Your task to perform on an android device: Go to display settings Image 0: 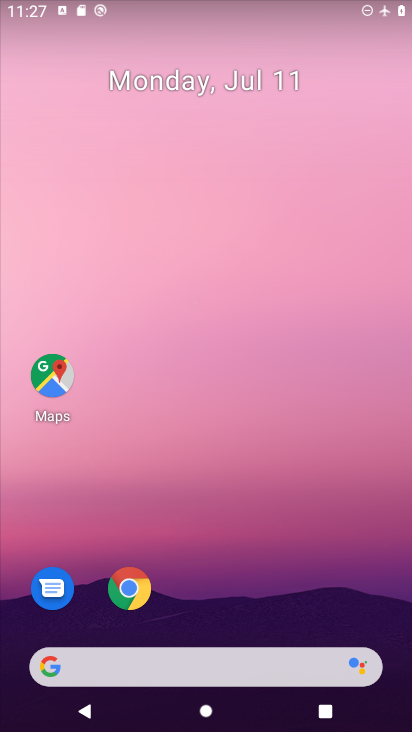
Step 0: drag from (394, 641) to (250, 55)
Your task to perform on an android device: Go to display settings Image 1: 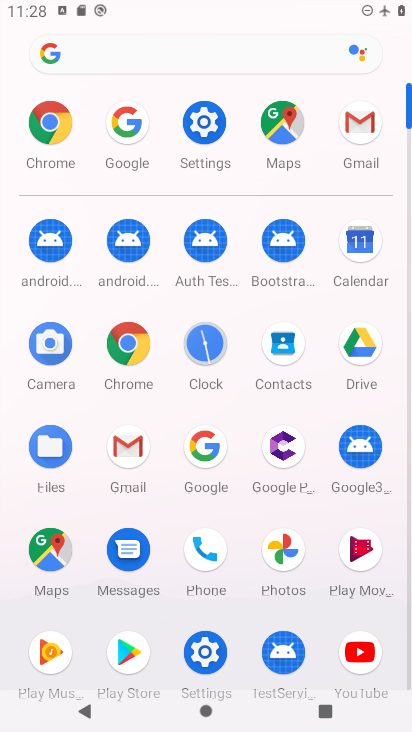
Step 1: click (201, 642)
Your task to perform on an android device: Go to display settings Image 2: 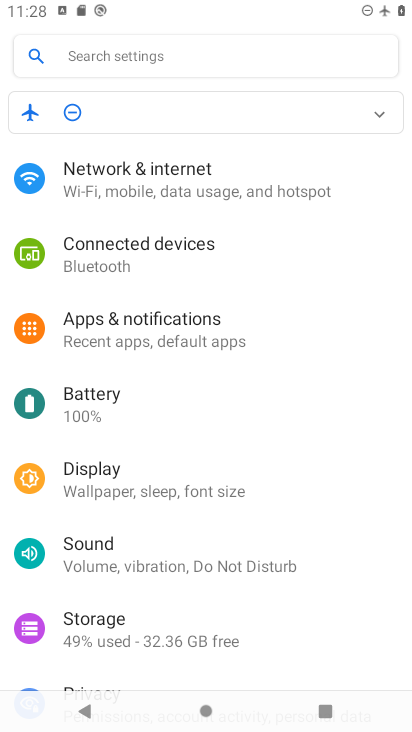
Step 2: click (117, 494)
Your task to perform on an android device: Go to display settings Image 3: 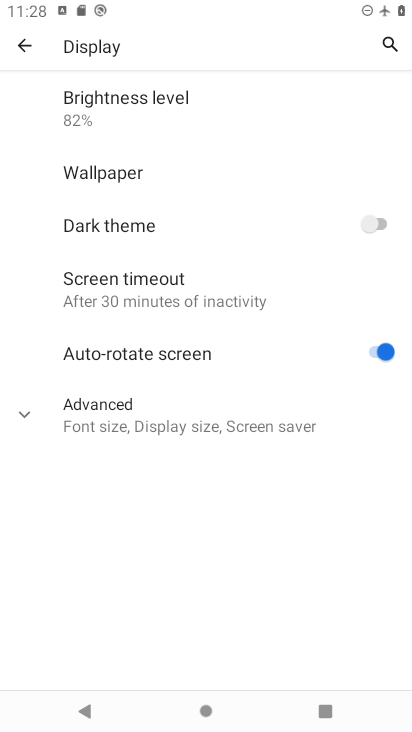
Step 3: task complete